Your task to perform on an android device: Is it going to rain tomorrow? Image 0: 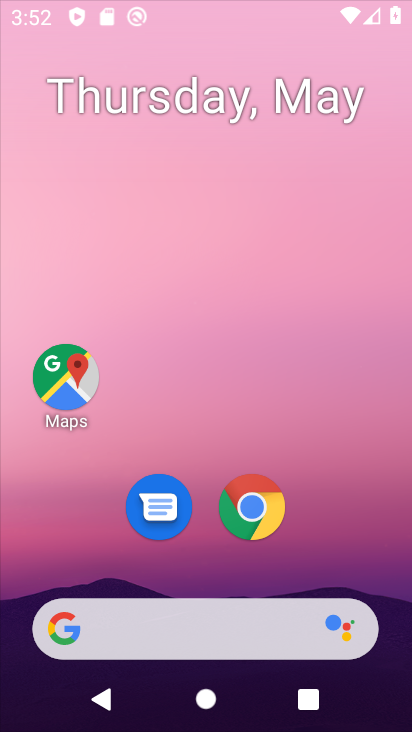
Step 0: drag from (346, 610) to (208, 73)
Your task to perform on an android device: Is it going to rain tomorrow? Image 1: 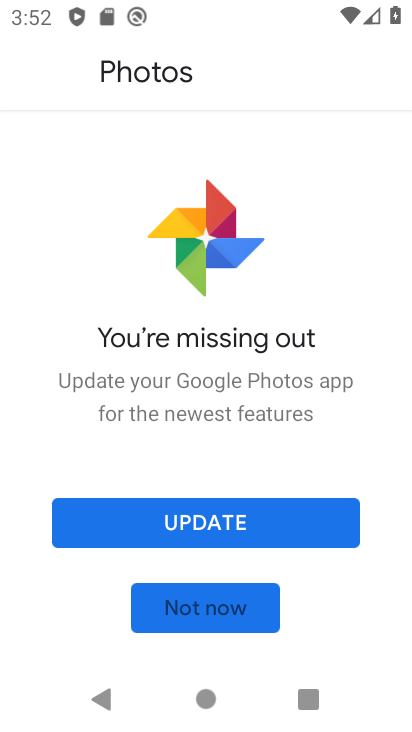
Step 1: click (191, 609)
Your task to perform on an android device: Is it going to rain tomorrow? Image 2: 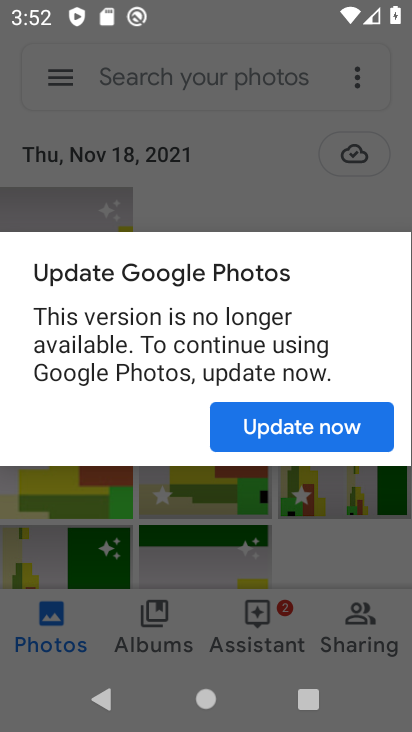
Step 2: click (325, 434)
Your task to perform on an android device: Is it going to rain tomorrow? Image 3: 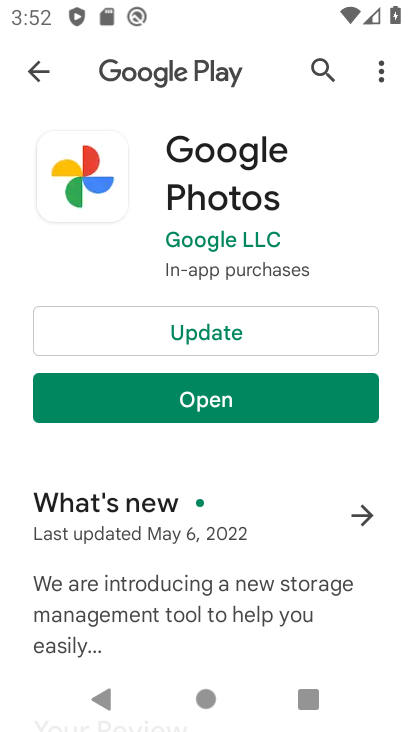
Step 3: press home button
Your task to perform on an android device: Is it going to rain tomorrow? Image 4: 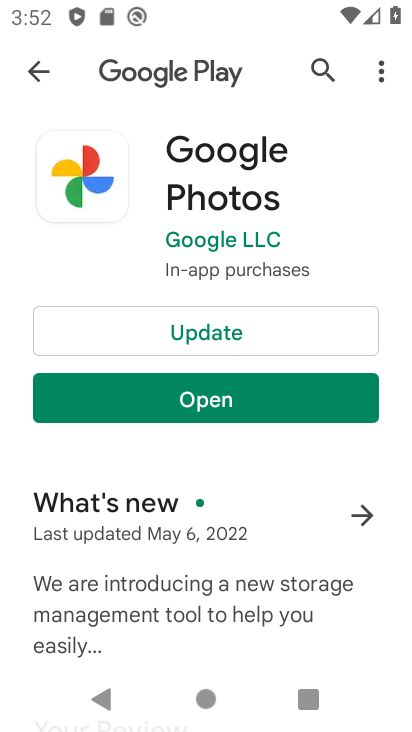
Step 4: press home button
Your task to perform on an android device: Is it going to rain tomorrow? Image 5: 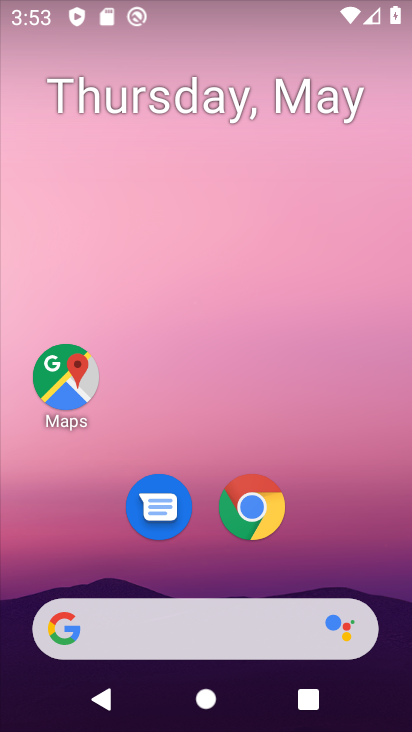
Step 5: drag from (10, 206) to (405, 436)
Your task to perform on an android device: Is it going to rain tomorrow? Image 6: 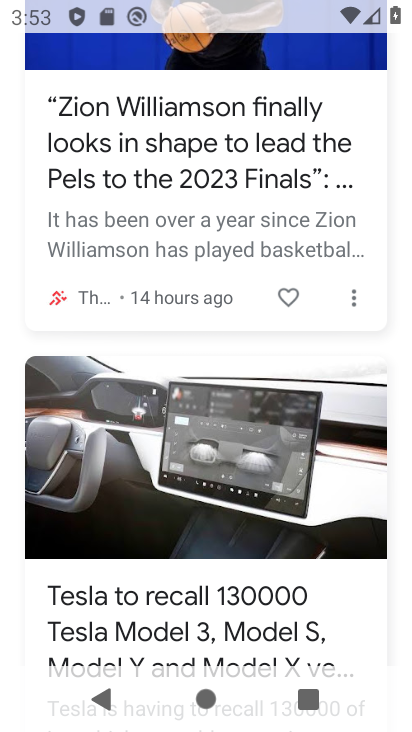
Step 6: drag from (161, 204) to (226, 454)
Your task to perform on an android device: Is it going to rain tomorrow? Image 7: 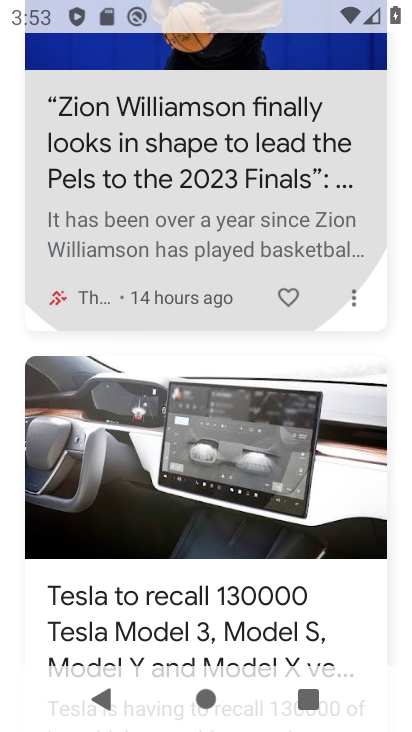
Step 7: click (242, 146)
Your task to perform on an android device: Is it going to rain tomorrow? Image 8: 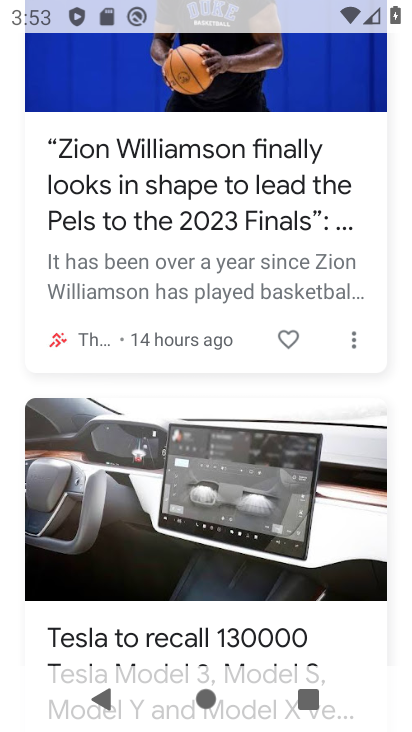
Step 8: drag from (260, 187) to (298, 508)
Your task to perform on an android device: Is it going to rain tomorrow? Image 9: 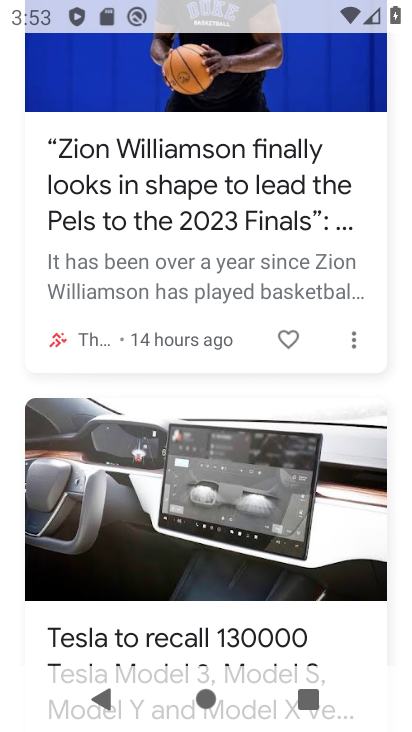
Step 9: drag from (291, 238) to (240, 566)
Your task to perform on an android device: Is it going to rain tomorrow? Image 10: 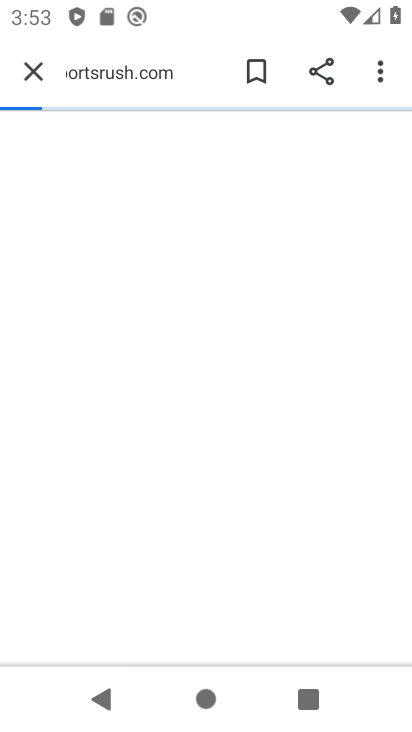
Step 10: drag from (207, 333) to (264, 551)
Your task to perform on an android device: Is it going to rain tomorrow? Image 11: 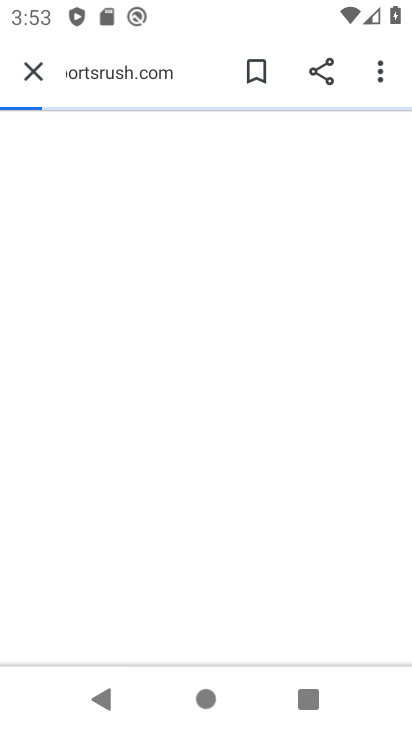
Step 11: drag from (195, 86) to (290, 486)
Your task to perform on an android device: Is it going to rain tomorrow? Image 12: 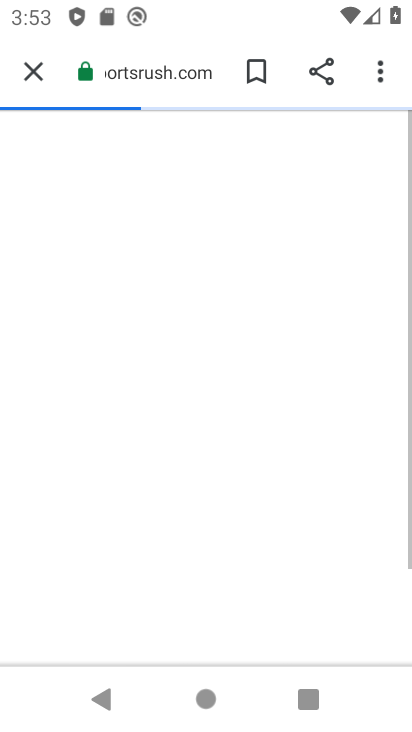
Step 12: click (28, 60)
Your task to perform on an android device: Is it going to rain tomorrow? Image 13: 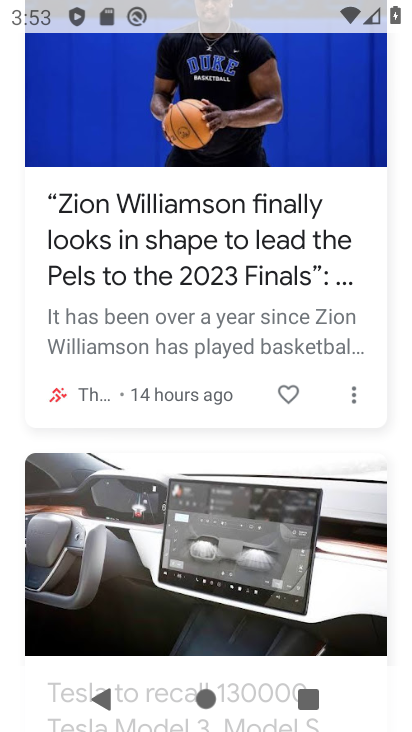
Step 13: drag from (168, 150) to (316, 527)
Your task to perform on an android device: Is it going to rain tomorrow? Image 14: 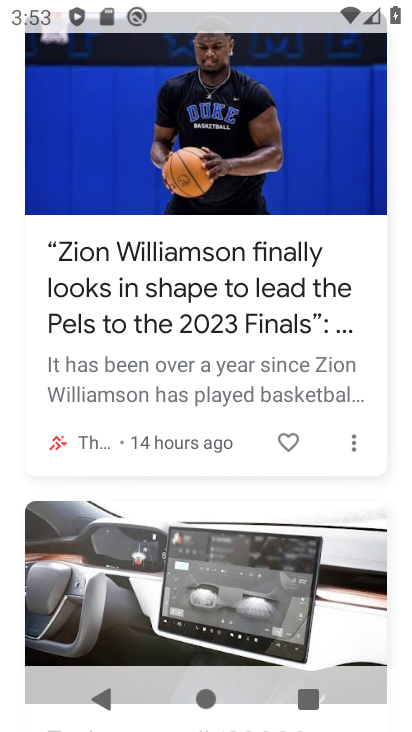
Step 14: drag from (222, 366) to (238, 467)
Your task to perform on an android device: Is it going to rain tomorrow? Image 15: 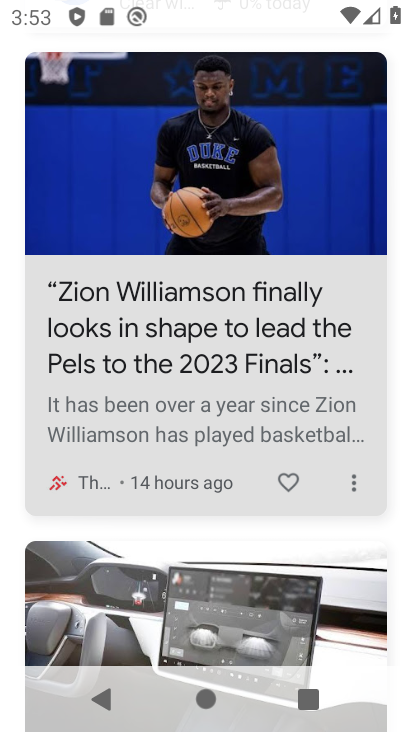
Step 15: drag from (201, 377) to (193, 577)
Your task to perform on an android device: Is it going to rain tomorrow? Image 16: 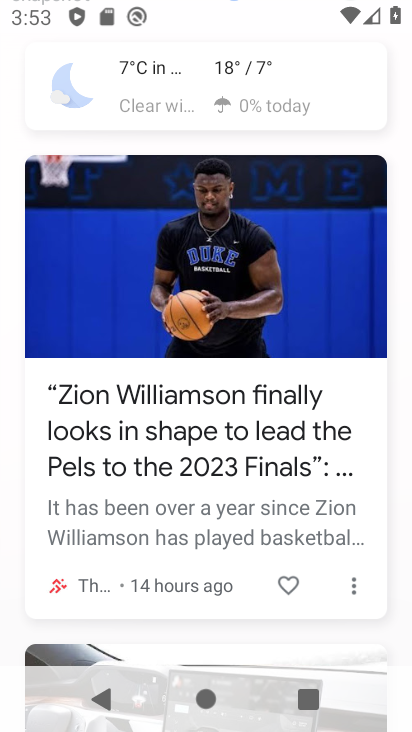
Step 16: drag from (175, 359) to (240, 566)
Your task to perform on an android device: Is it going to rain tomorrow? Image 17: 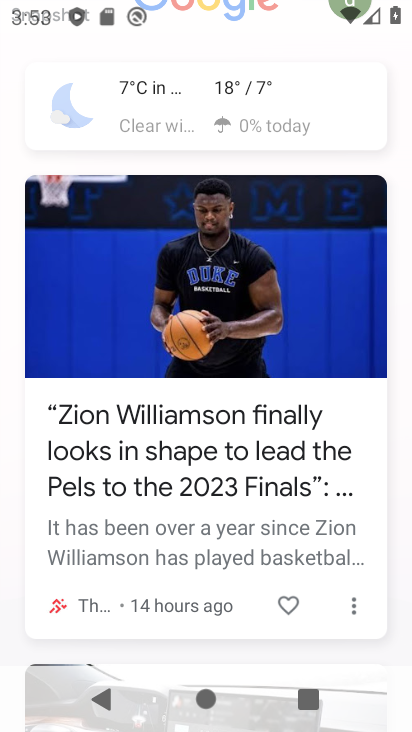
Step 17: drag from (221, 426) to (240, 477)
Your task to perform on an android device: Is it going to rain tomorrow? Image 18: 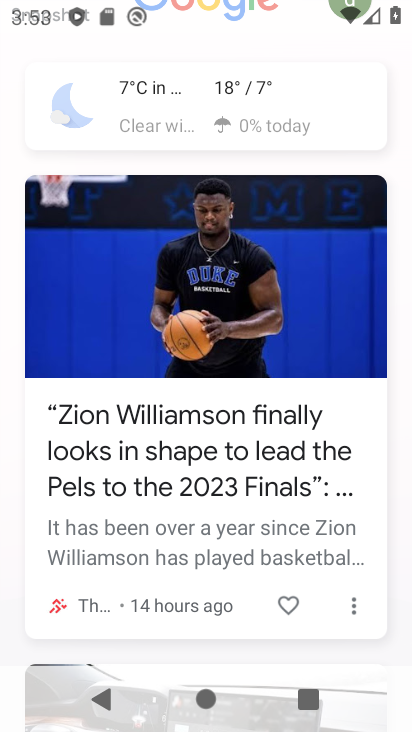
Step 18: click (191, 114)
Your task to perform on an android device: Is it going to rain tomorrow? Image 19: 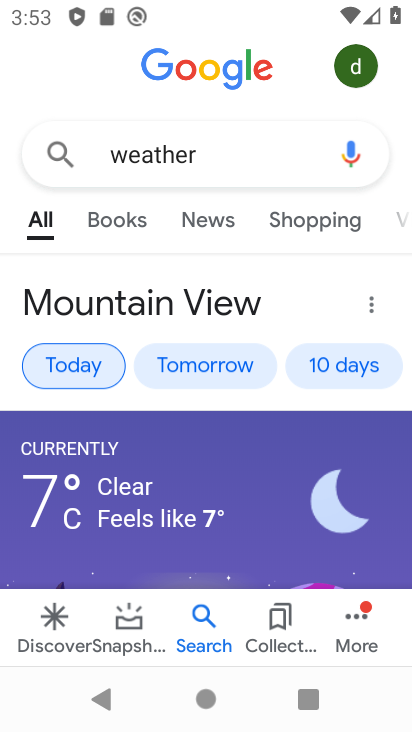
Step 19: click (239, 365)
Your task to perform on an android device: Is it going to rain tomorrow? Image 20: 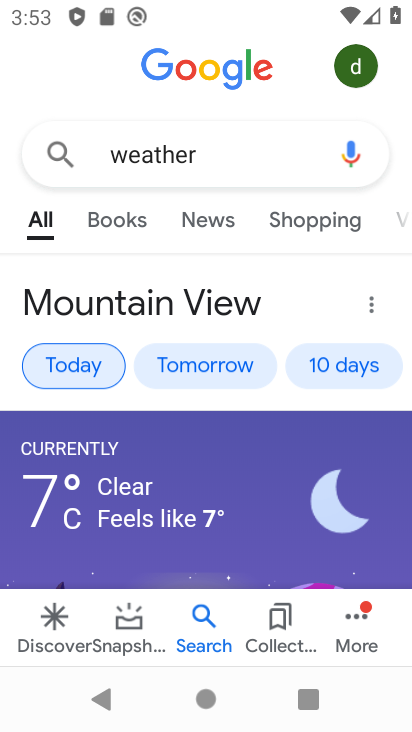
Step 20: click (230, 360)
Your task to perform on an android device: Is it going to rain tomorrow? Image 21: 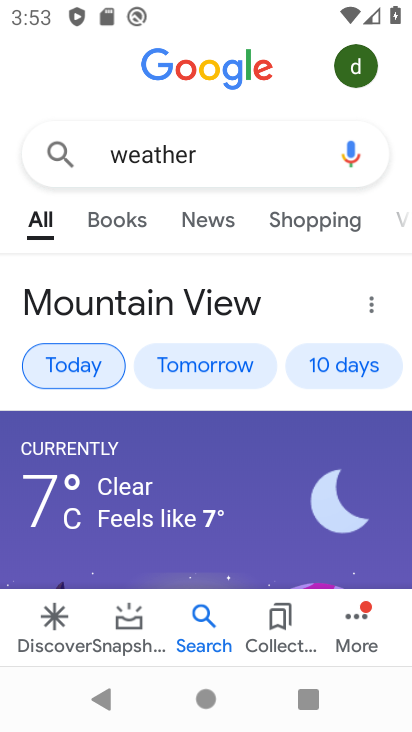
Step 21: click (233, 356)
Your task to perform on an android device: Is it going to rain tomorrow? Image 22: 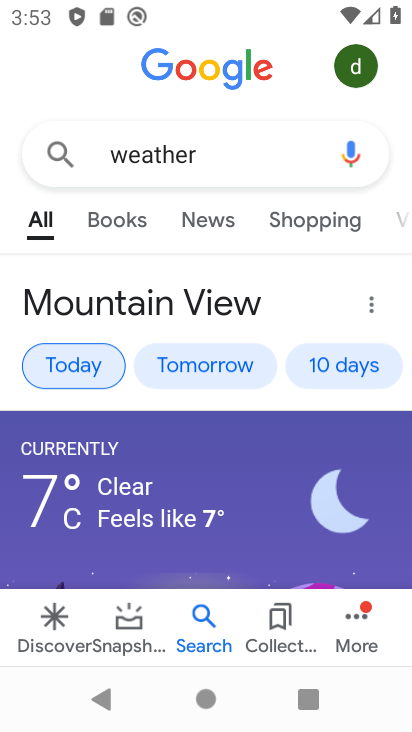
Step 22: click (232, 358)
Your task to perform on an android device: Is it going to rain tomorrow? Image 23: 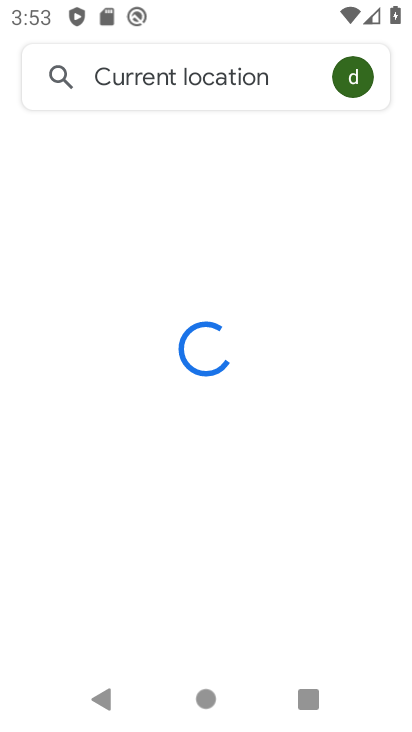
Step 23: click (223, 376)
Your task to perform on an android device: Is it going to rain tomorrow? Image 24: 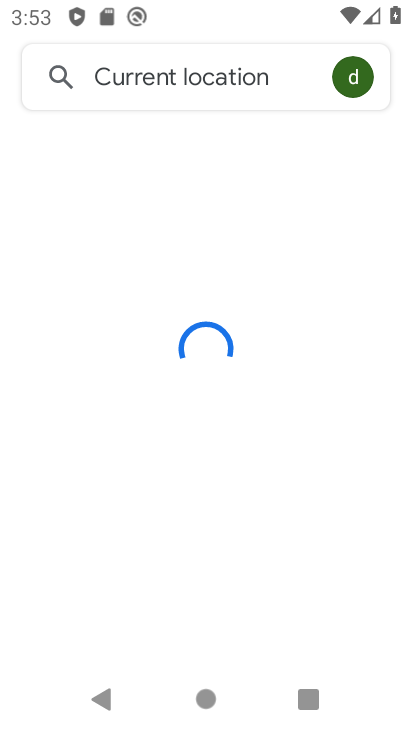
Step 24: click (230, 376)
Your task to perform on an android device: Is it going to rain tomorrow? Image 25: 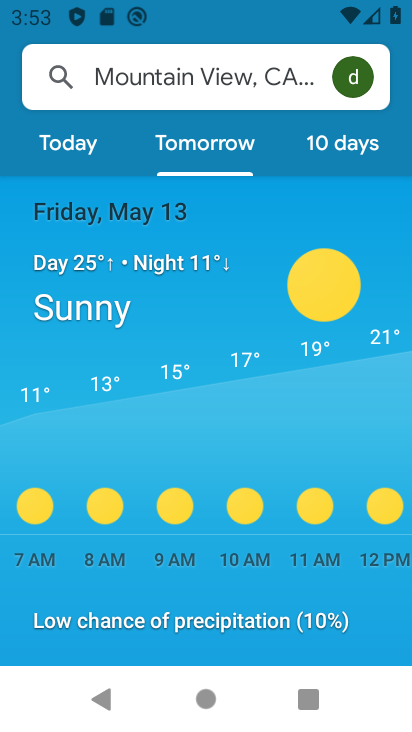
Step 25: task complete